Your task to perform on an android device: Check the news Image 0: 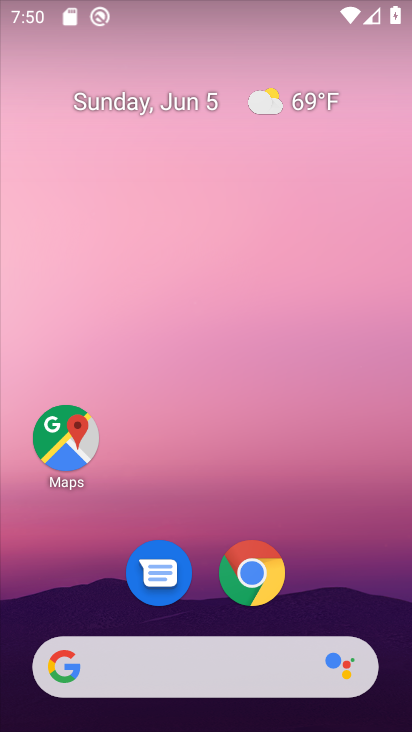
Step 0: click (109, 651)
Your task to perform on an android device: Check the news Image 1: 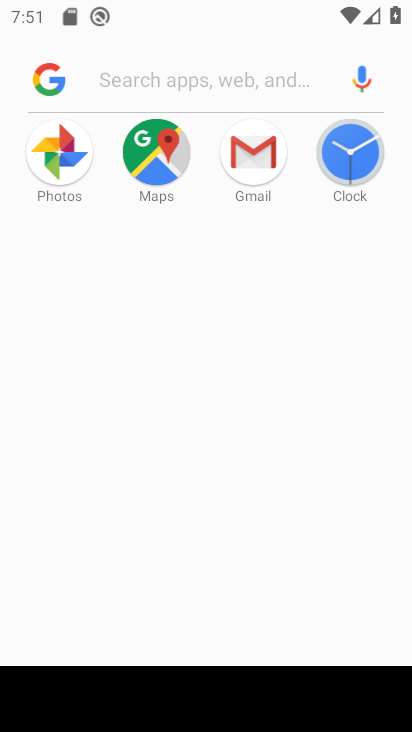
Step 1: type "news"
Your task to perform on an android device: Check the news Image 2: 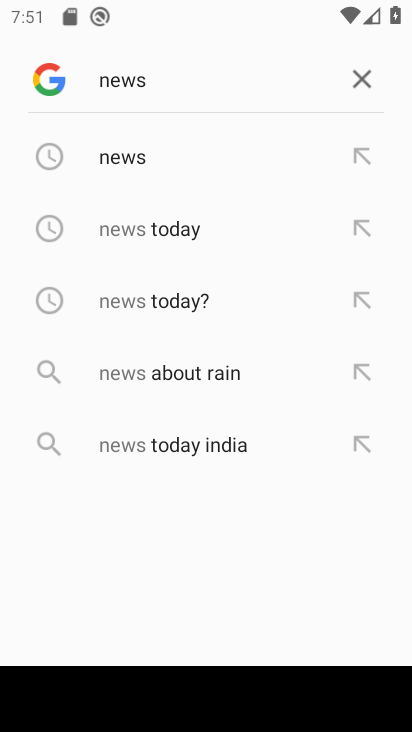
Step 2: click (167, 221)
Your task to perform on an android device: Check the news Image 3: 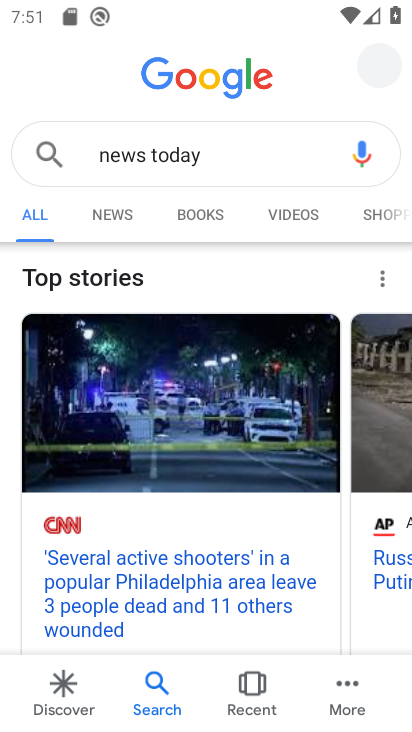
Step 3: task complete